Your task to perform on an android device: clear all cookies in the chrome app Image 0: 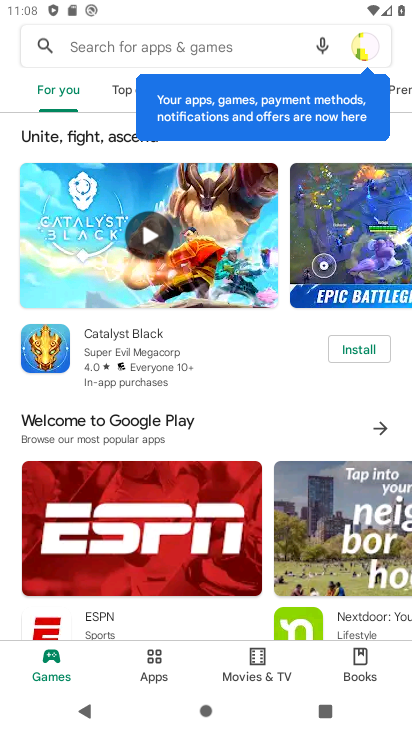
Step 0: press home button
Your task to perform on an android device: clear all cookies in the chrome app Image 1: 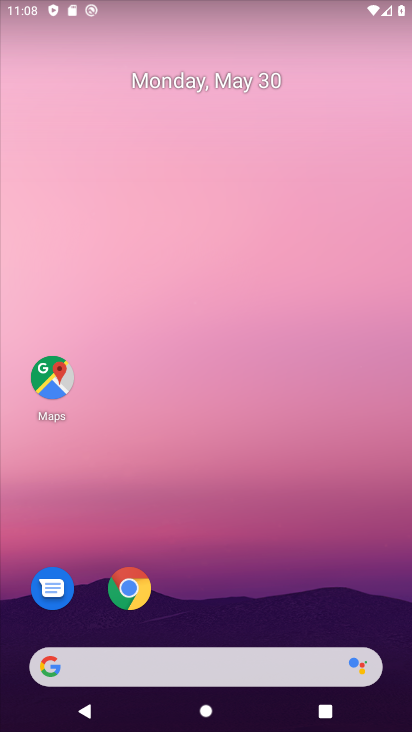
Step 1: click (127, 582)
Your task to perform on an android device: clear all cookies in the chrome app Image 2: 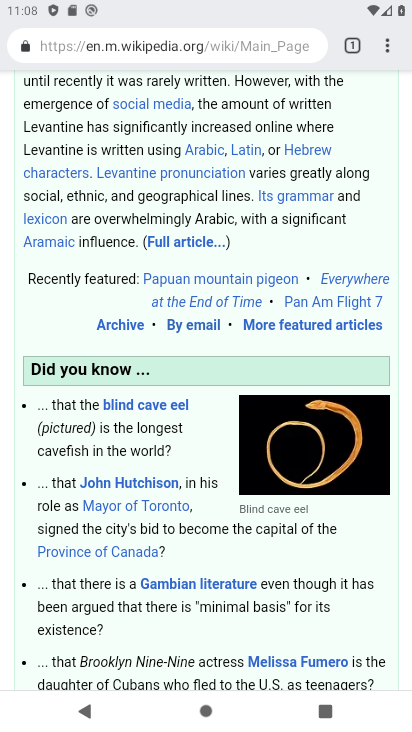
Step 2: click (384, 43)
Your task to perform on an android device: clear all cookies in the chrome app Image 3: 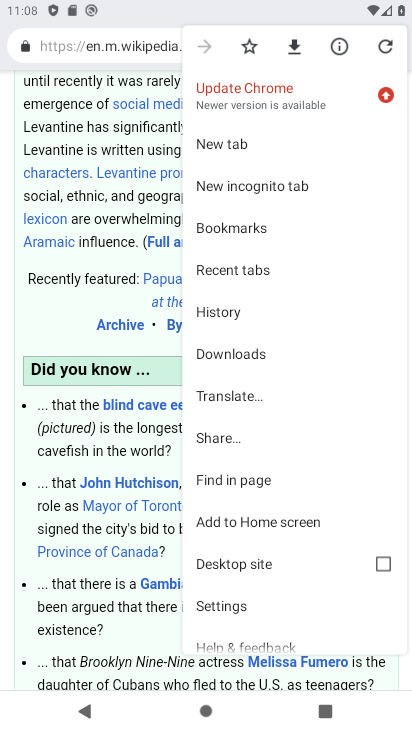
Step 3: click (252, 314)
Your task to perform on an android device: clear all cookies in the chrome app Image 4: 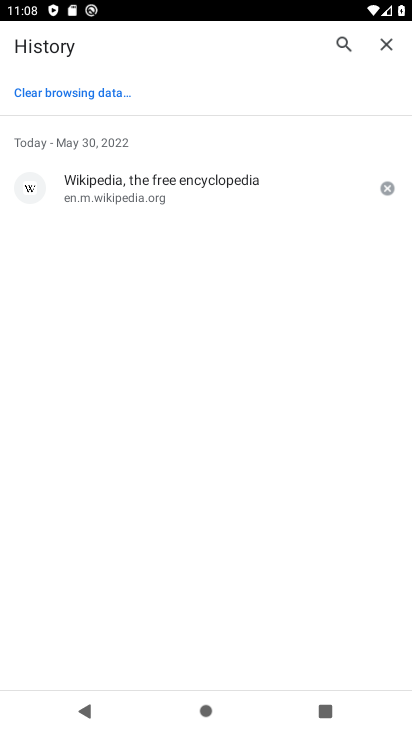
Step 4: click (56, 89)
Your task to perform on an android device: clear all cookies in the chrome app Image 5: 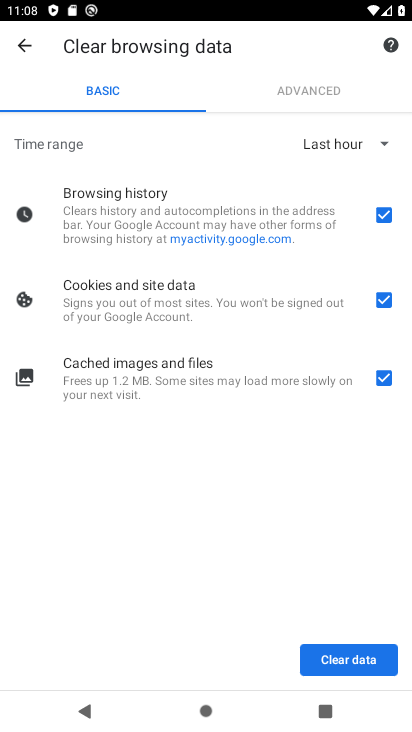
Step 5: click (380, 214)
Your task to perform on an android device: clear all cookies in the chrome app Image 6: 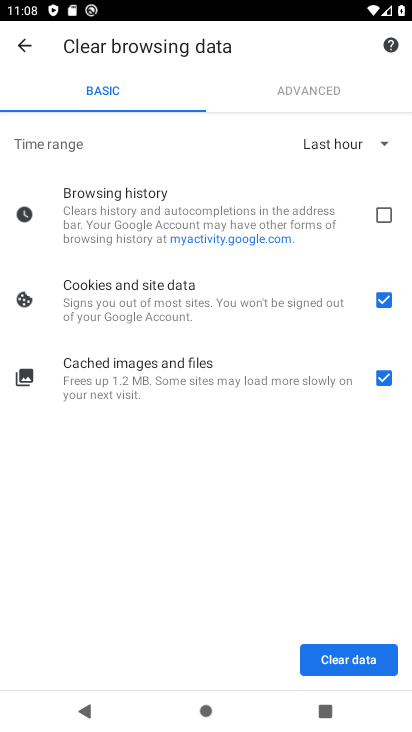
Step 6: click (381, 382)
Your task to perform on an android device: clear all cookies in the chrome app Image 7: 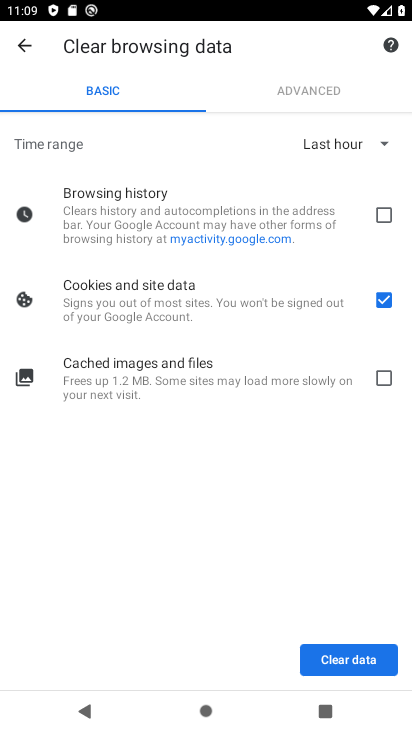
Step 7: click (348, 665)
Your task to perform on an android device: clear all cookies in the chrome app Image 8: 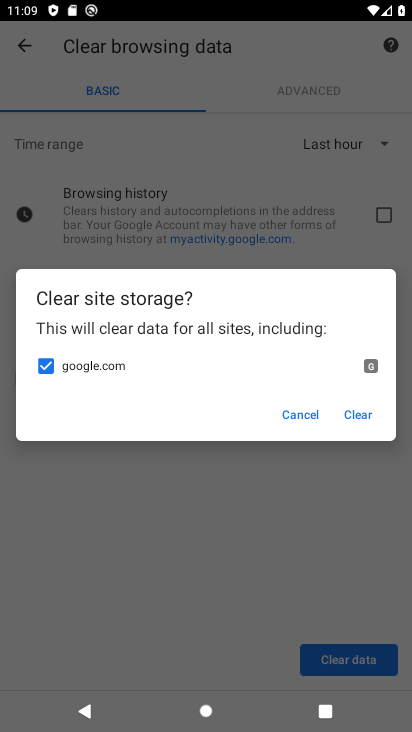
Step 8: click (360, 414)
Your task to perform on an android device: clear all cookies in the chrome app Image 9: 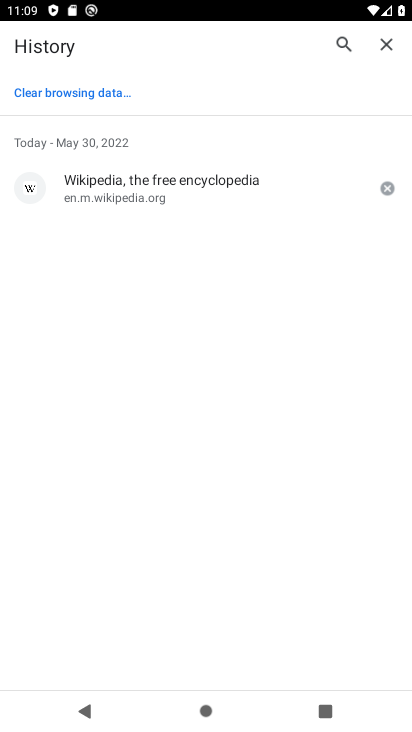
Step 9: task complete